Your task to perform on an android device: turn on wifi Image 0: 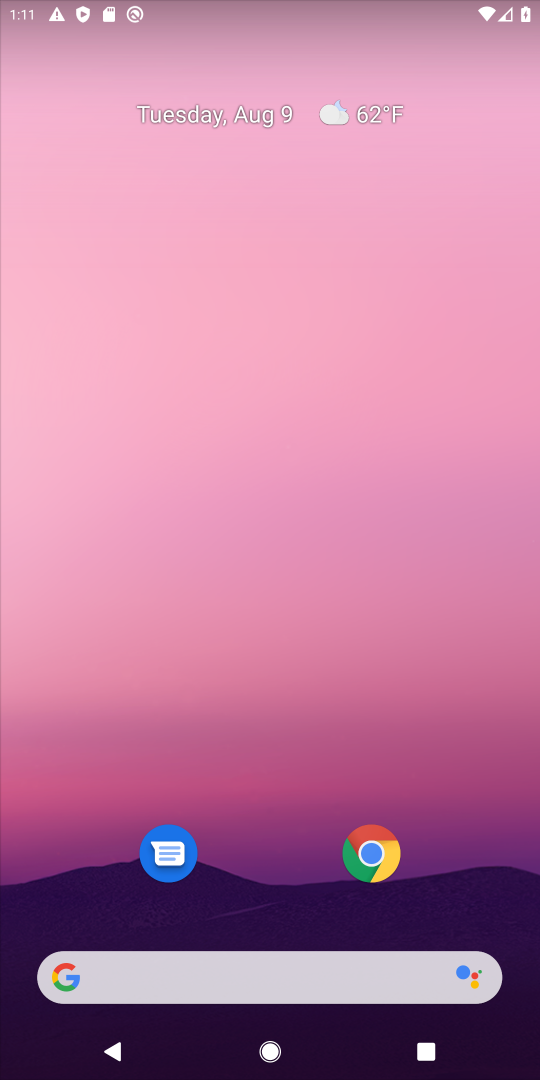
Step 0: drag from (255, 874) to (223, 112)
Your task to perform on an android device: turn on wifi Image 1: 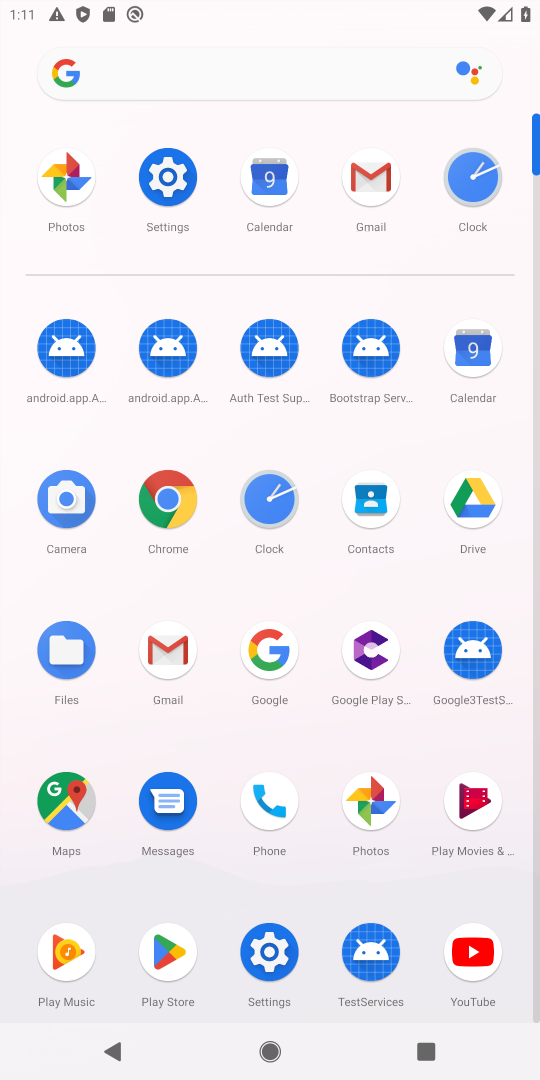
Step 1: click (143, 171)
Your task to perform on an android device: turn on wifi Image 2: 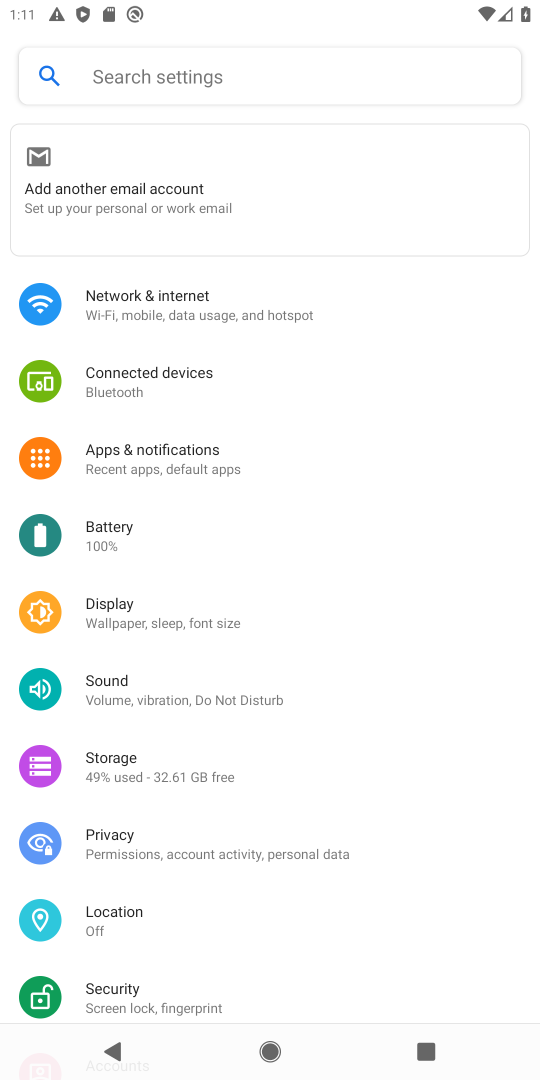
Step 2: click (113, 284)
Your task to perform on an android device: turn on wifi Image 3: 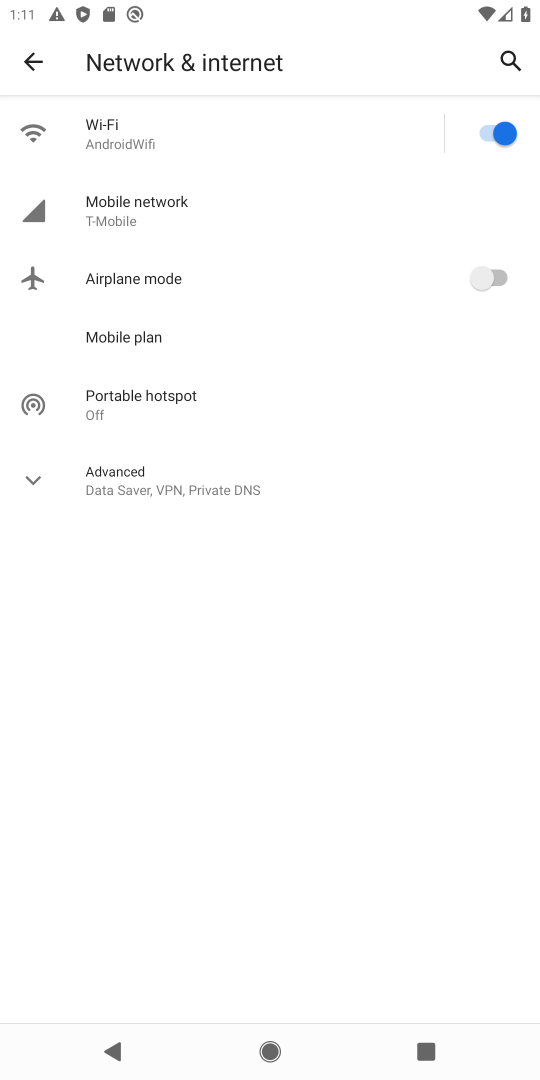
Step 3: click (117, 150)
Your task to perform on an android device: turn on wifi Image 4: 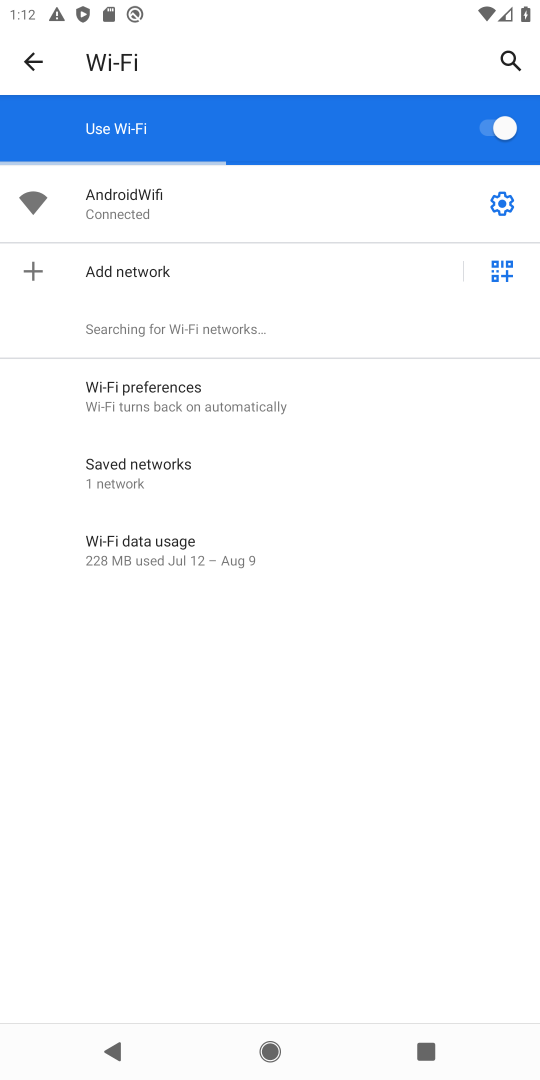
Step 4: task complete